Your task to perform on an android device: Search for sushi restaurants on Maps Image 0: 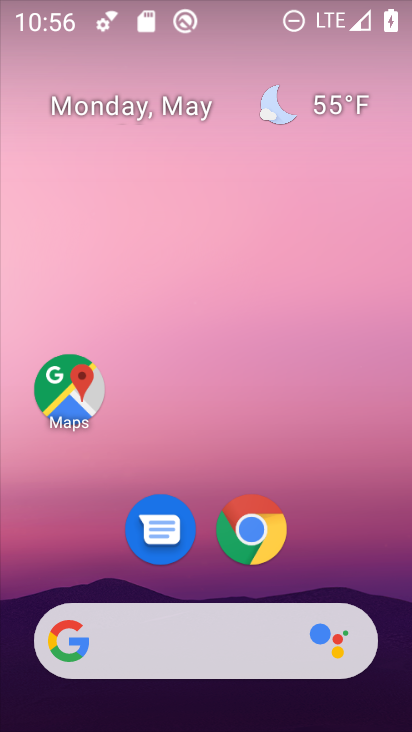
Step 0: click (52, 386)
Your task to perform on an android device: Search for sushi restaurants on Maps Image 1: 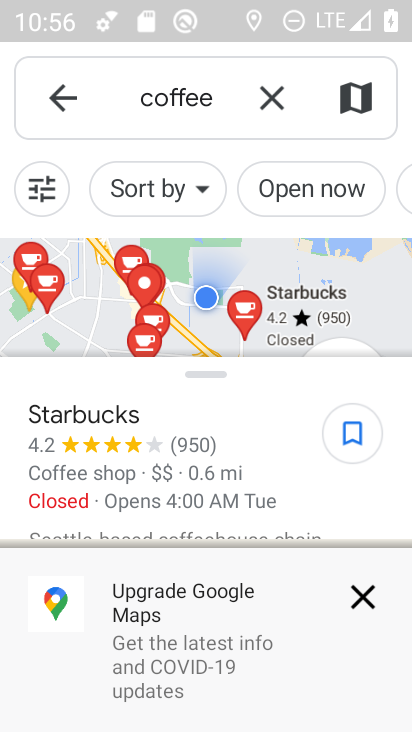
Step 1: click (258, 107)
Your task to perform on an android device: Search for sushi restaurants on Maps Image 2: 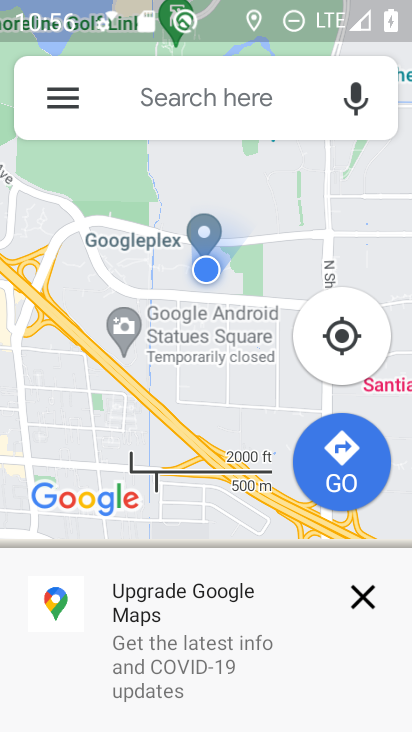
Step 2: click (186, 97)
Your task to perform on an android device: Search for sushi restaurants on Maps Image 3: 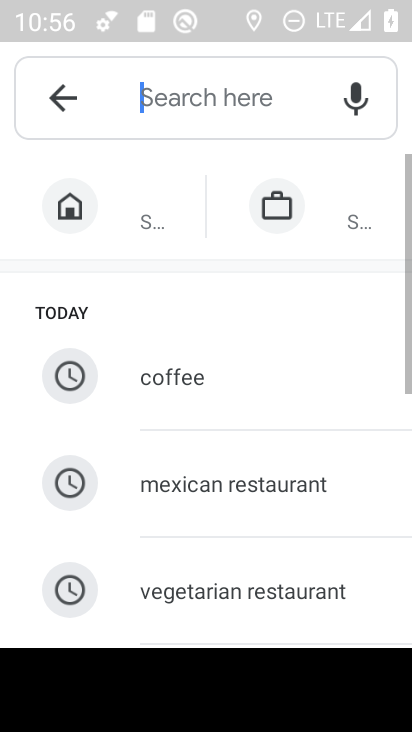
Step 3: drag from (214, 606) to (163, 132)
Your task to perform on an android device: Search for sushi restaurants on Maps Image 4: 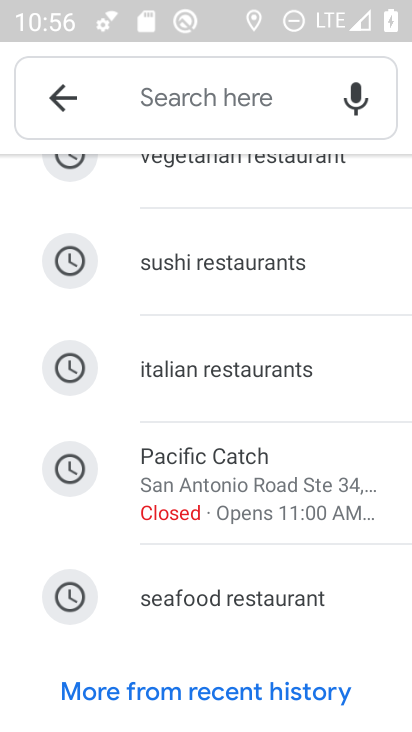
Step 4: click (167, 255)
Your task to perform on an android device: Search for sushi restaurants on Maps Image 5: 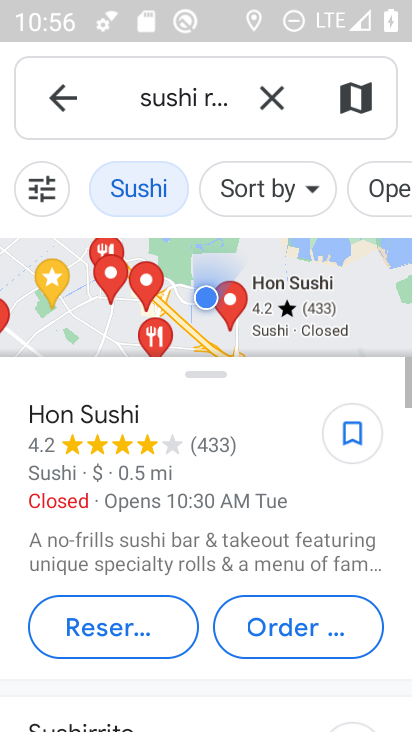
Step 5: task complete